Your task to perform on an android device: manage bookmarks in the chrome app Image 0: 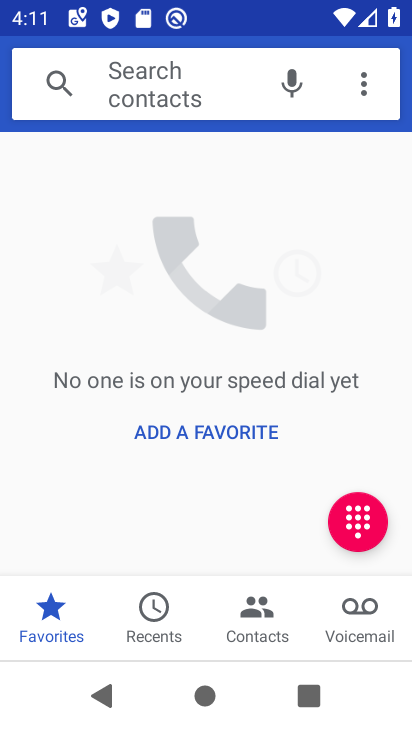
Step 0: press home button
Your task to perform on an android device: manage bookmarks in the chrome app Image 1: 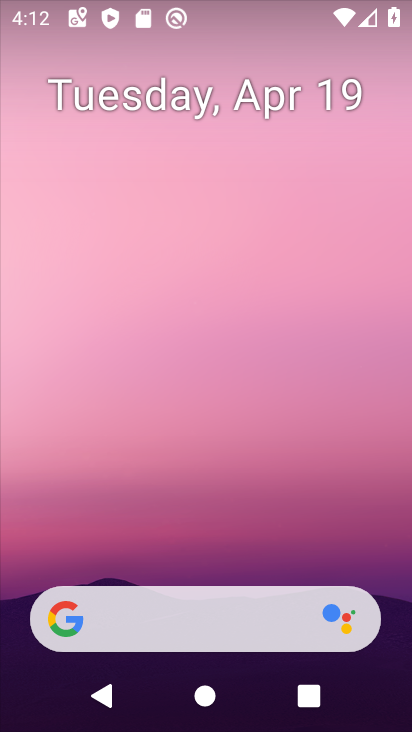
Step 1: drag from (205, 544) to (285, 130)
Your task to perform on an android device: manage bookmarks in the chrome app Image 2: 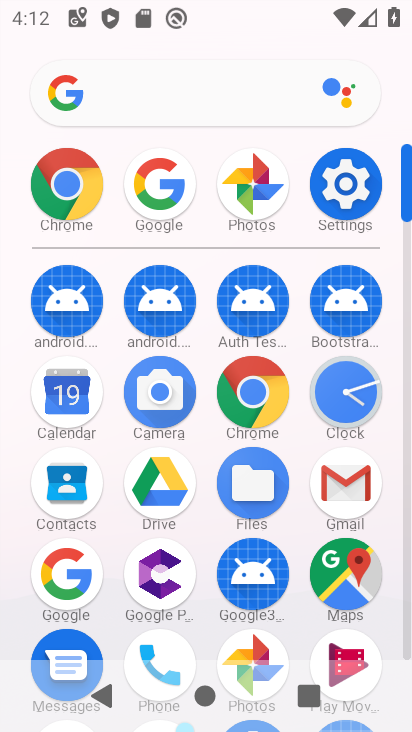
Step 2: click (64, 182)
Your task to perform on an android device: manage bookmarks in the chrome app Image 3: 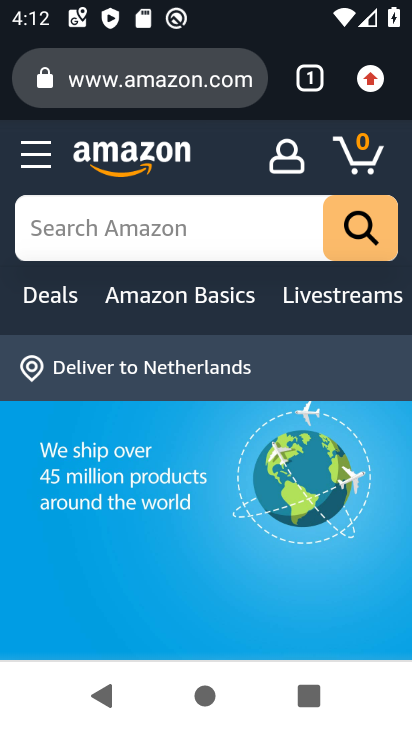
Step 3: click (379, 83)
Your task to perform on an android device: manage bookmarks in the chrome app Image 4: 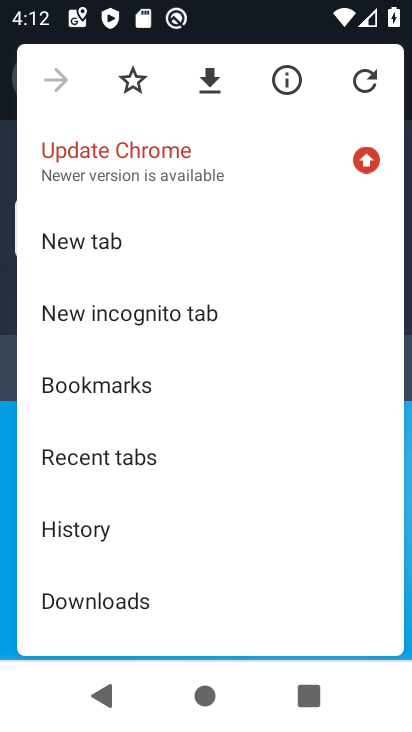
Step 4: click (126, 386)
Your task to perform on an android device: manage bookmarks in the chrome app Image 5: 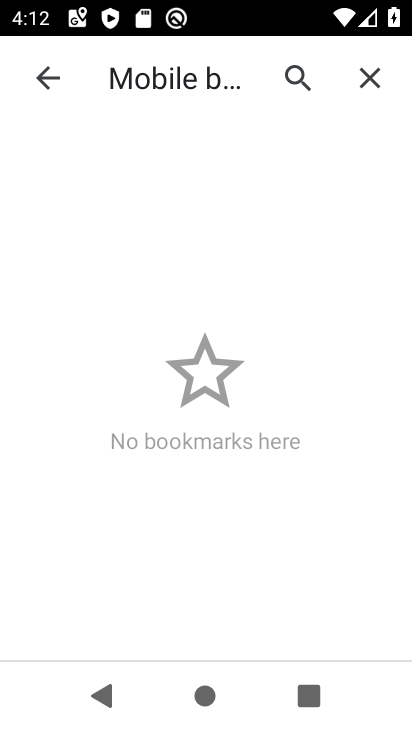
Step 5: task complete